Your task to perform on an android device: Check the news Image 0: 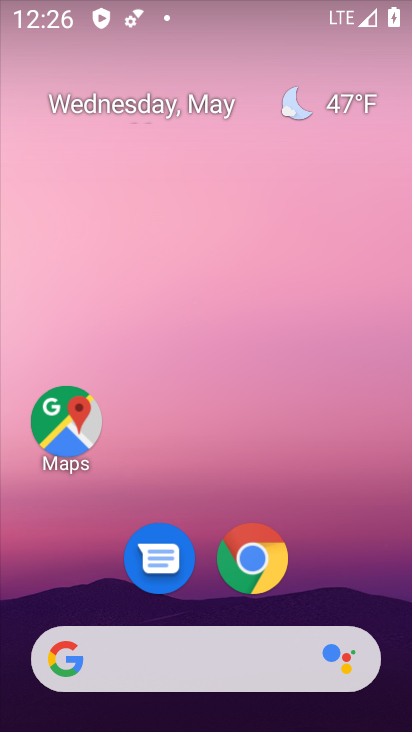
Step 0: drag from (2, 283) to (365, 349)
Your task to perform on an android device: Check the news Image 1: 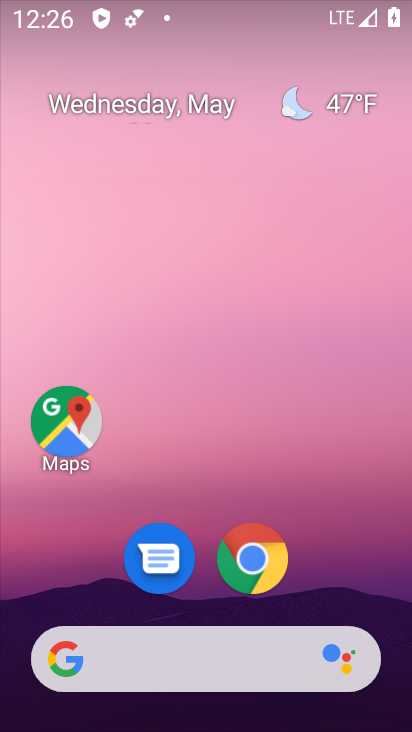
Step 1: task complete